Your task to perform on an android device: change keyboard looks Image 0: 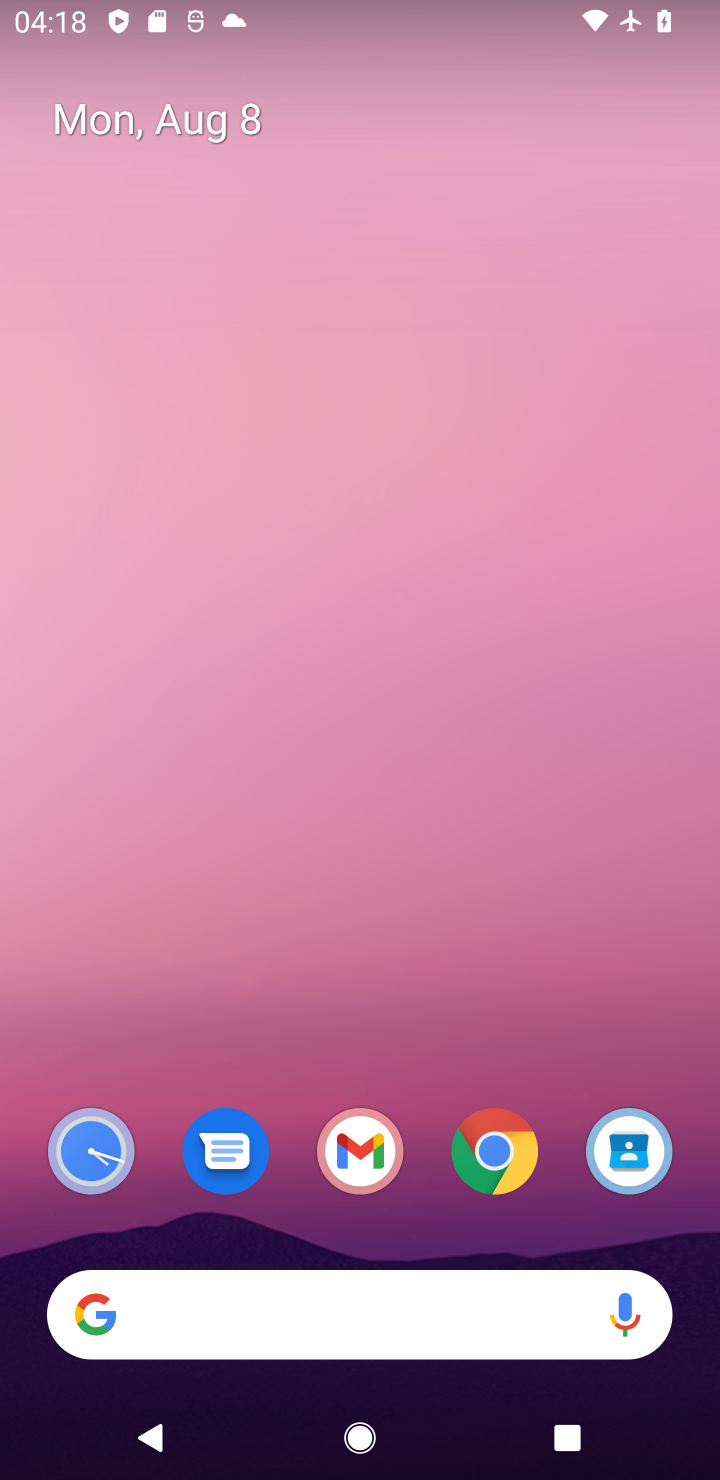
Step 0: drag from (388, 1061) to (355, 228)
Your task to perform on an android device: change keyboard looks Image 1: 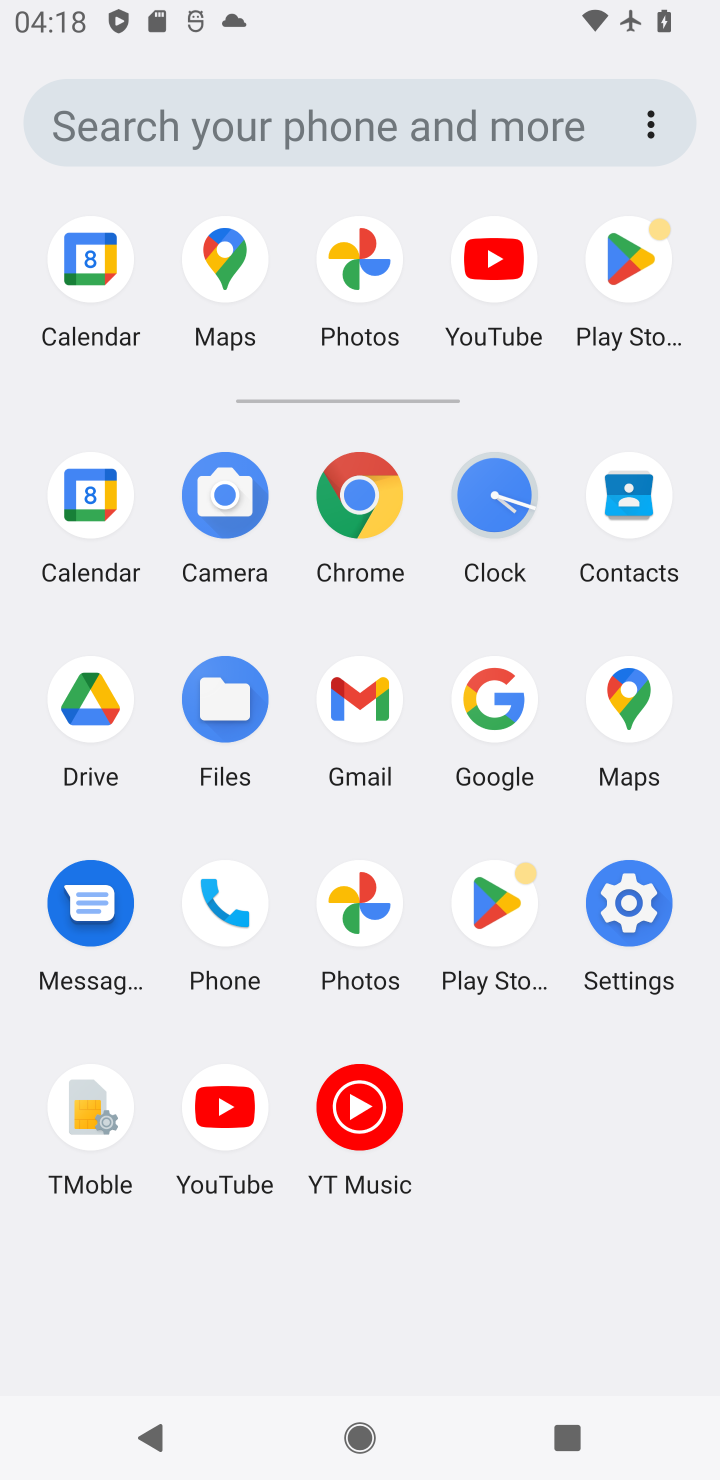
Step 1: click (608, 904)
Your task to perform on an android device: change keyboard looks Image 2: 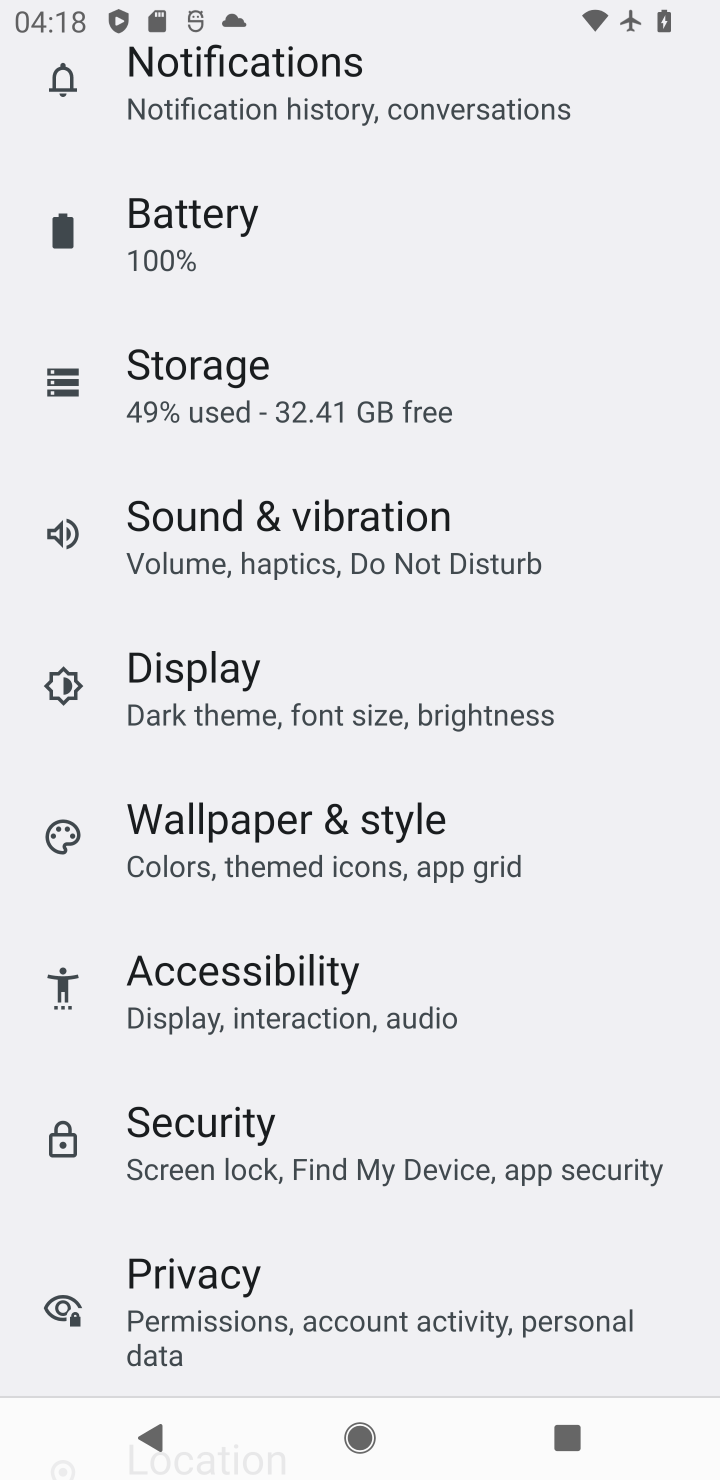
Step 2: drag from (425, 1159) to (318, 413)
Your task to perform on an android device: change keyboard looks Image 3: 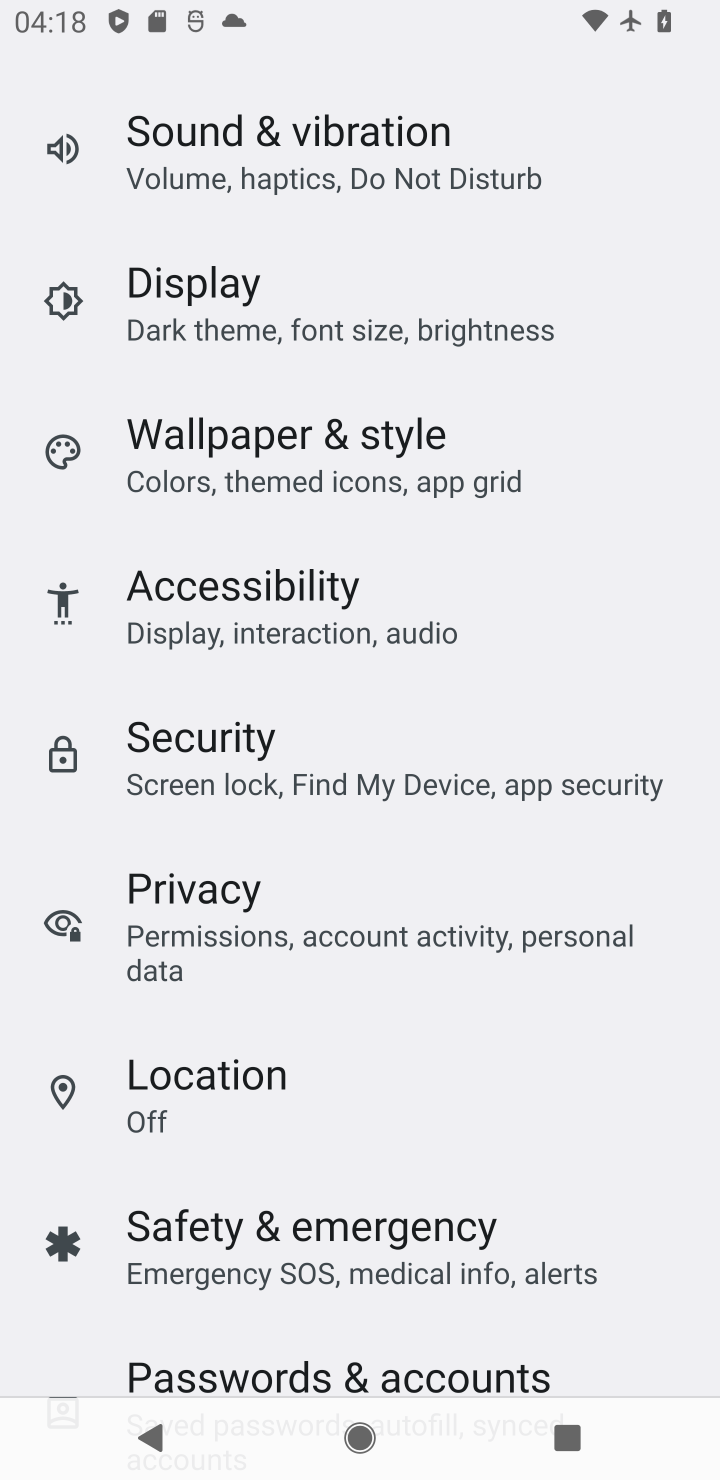
Step 3: drag from (329, 1163) to (329, 410)
Your task to perform on an android device: change keyboard looks Image 4: 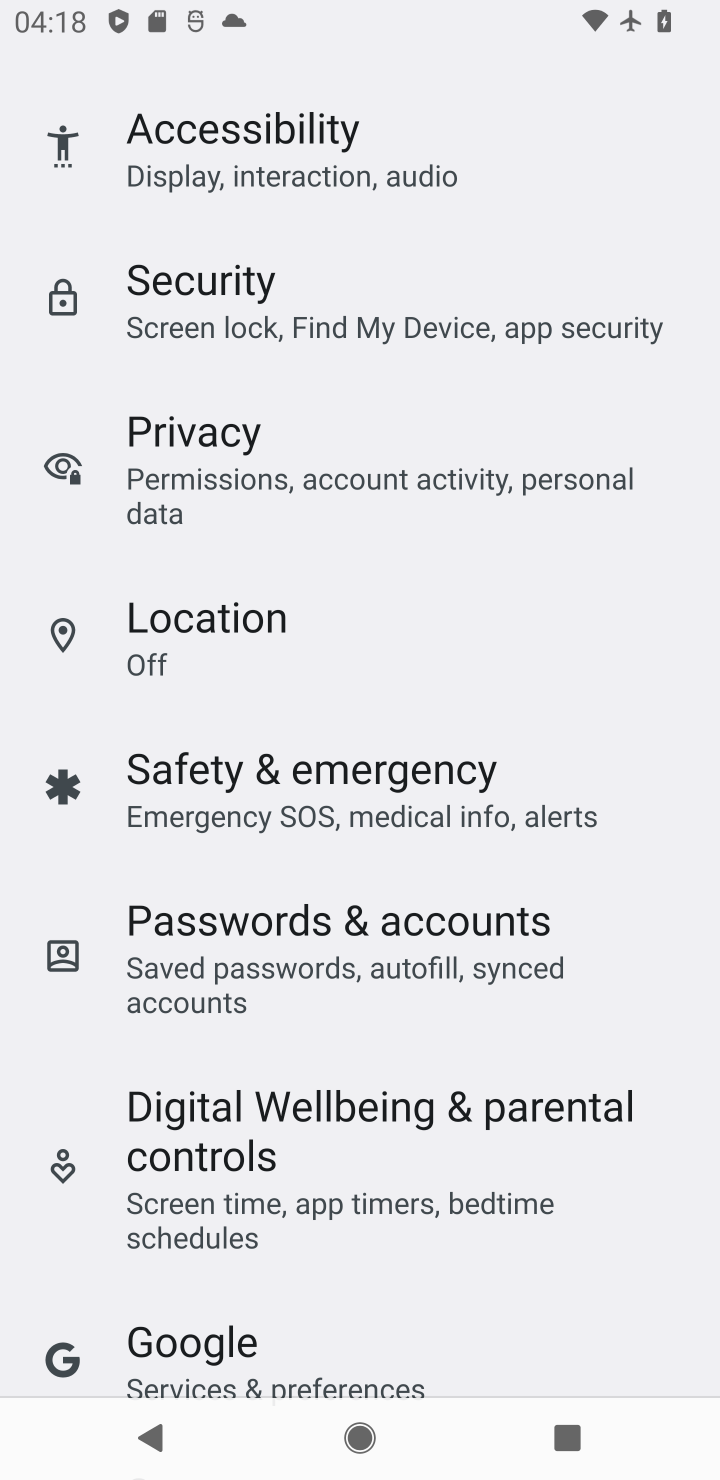
Step 4: drag from (332, 1302) to (321, 503)
Your task to perform on an android device: change keyboard looks Image 5: 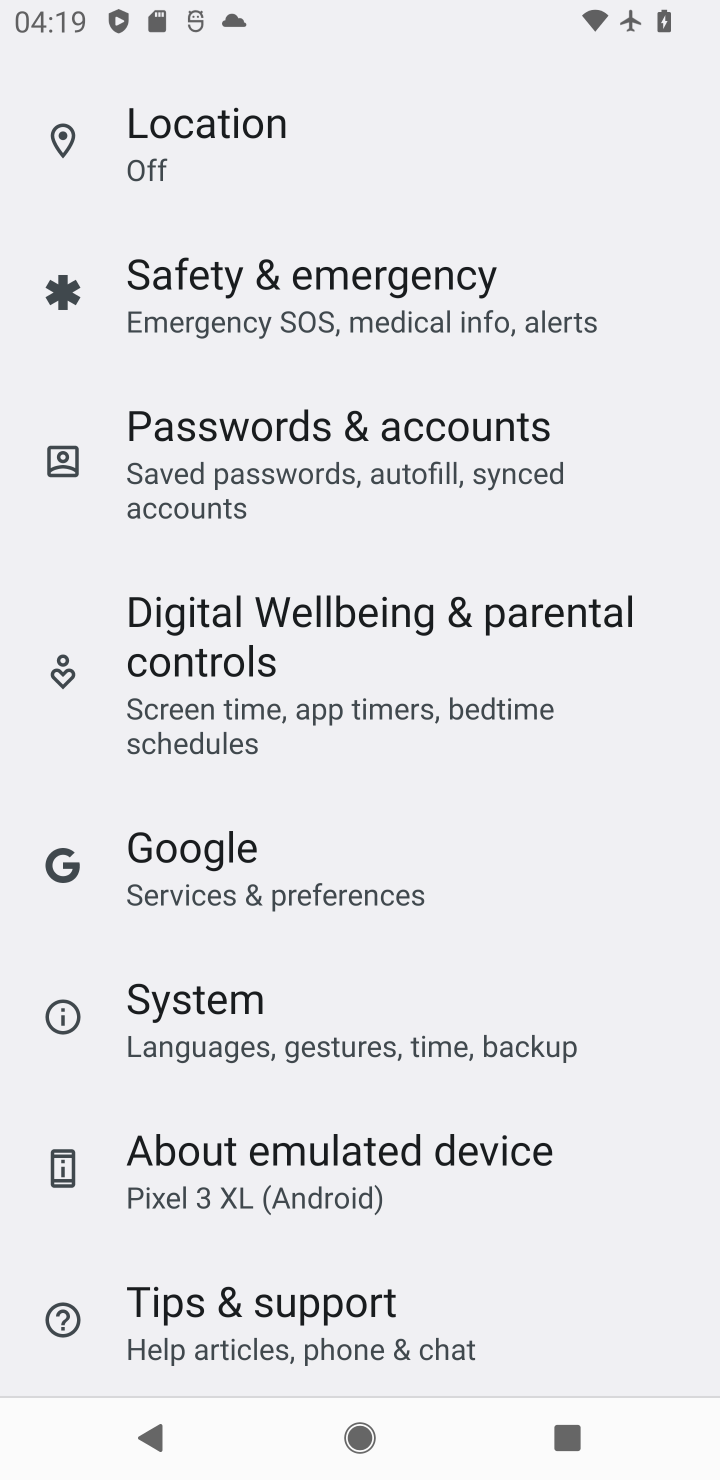
Step 5: drag from (321, 1345) to (321, 589)
Your task to perform on an android device: change keyboard looks Image 6: 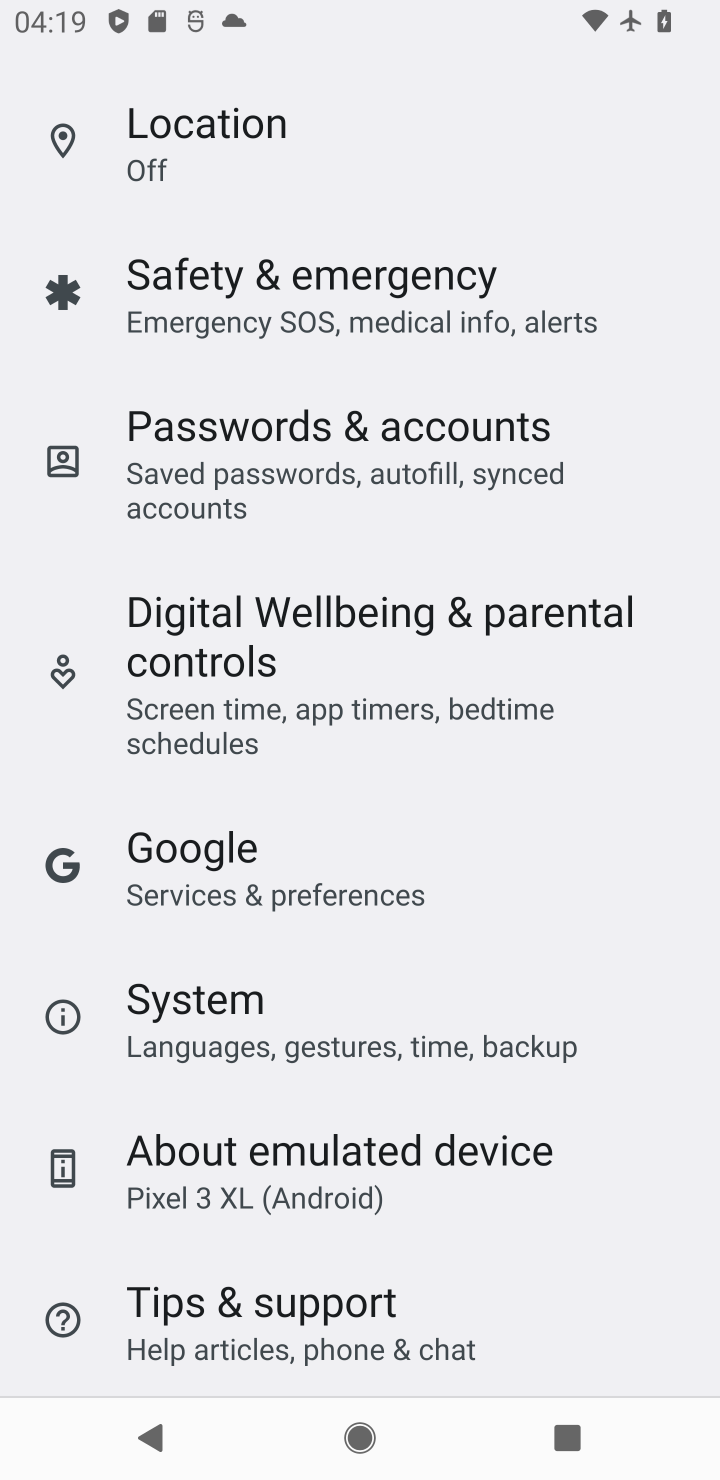
Step 6: click (311, 1040)
Your task to perform on an android device: change keyboard looks Image 7: 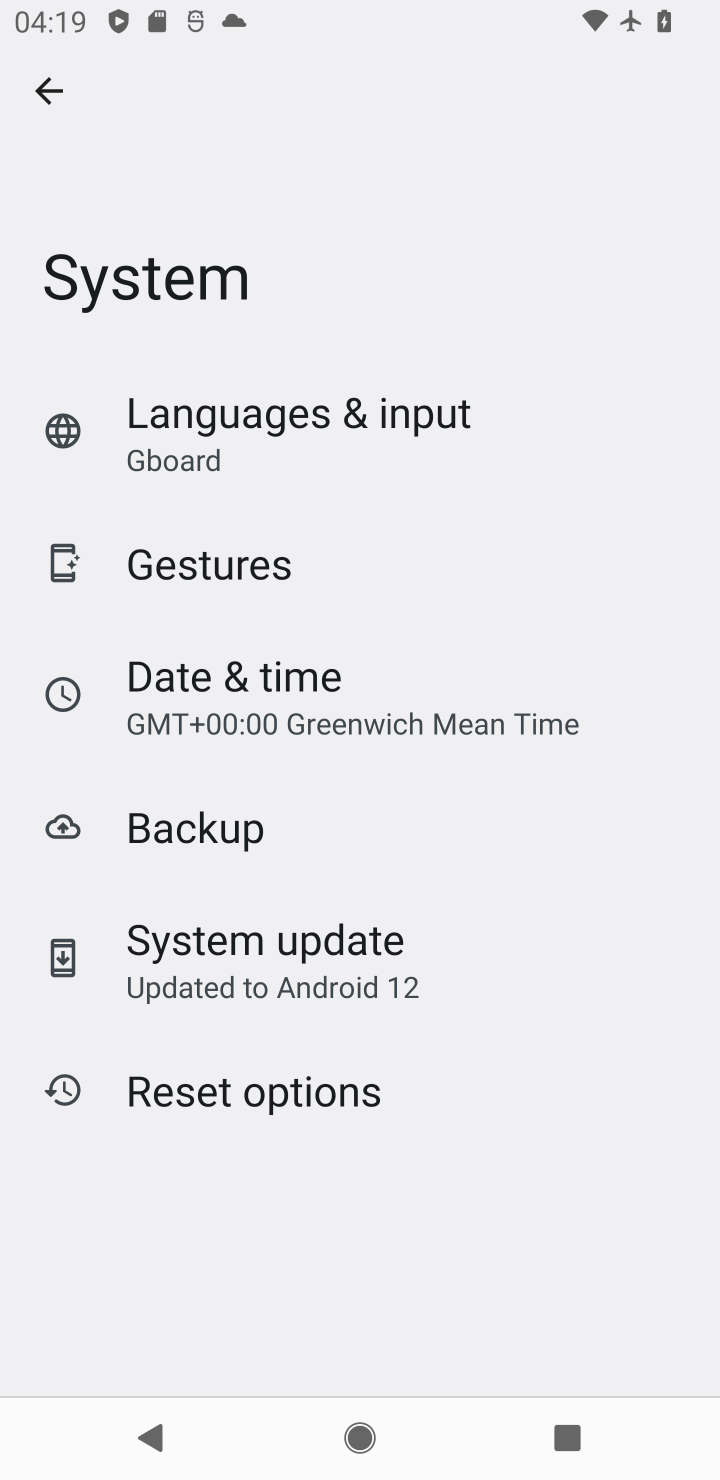
Step 7: click (179, 456)
Your task to perform on an android device: change keyboard looks Image 8: 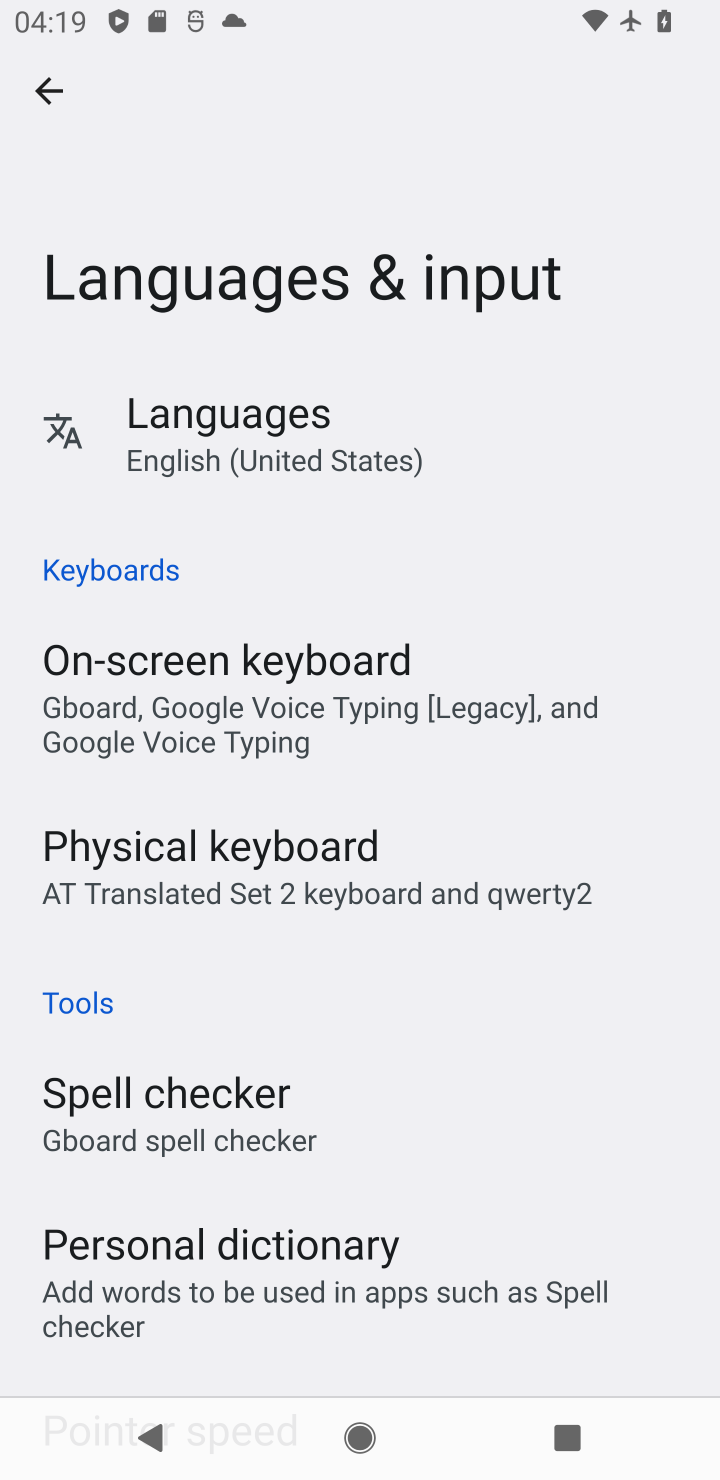
Step 8: drag from (320, 1098) to (238, 454)
Your task to perform on an android device: change keyboard looks Image 9: 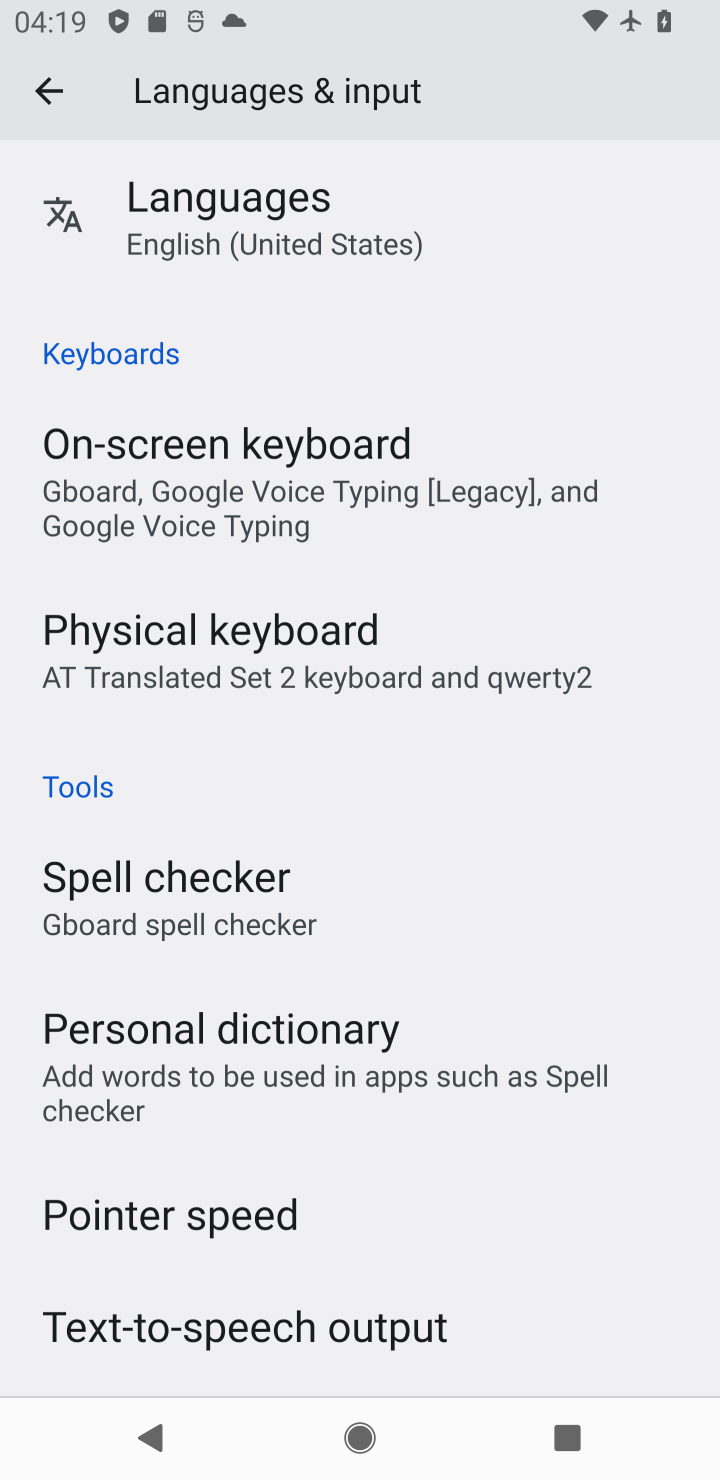
Step 9: drag from (244, 1114) to (197, 590)
Your task to perform on an android device: change keyboard looks Image 10: 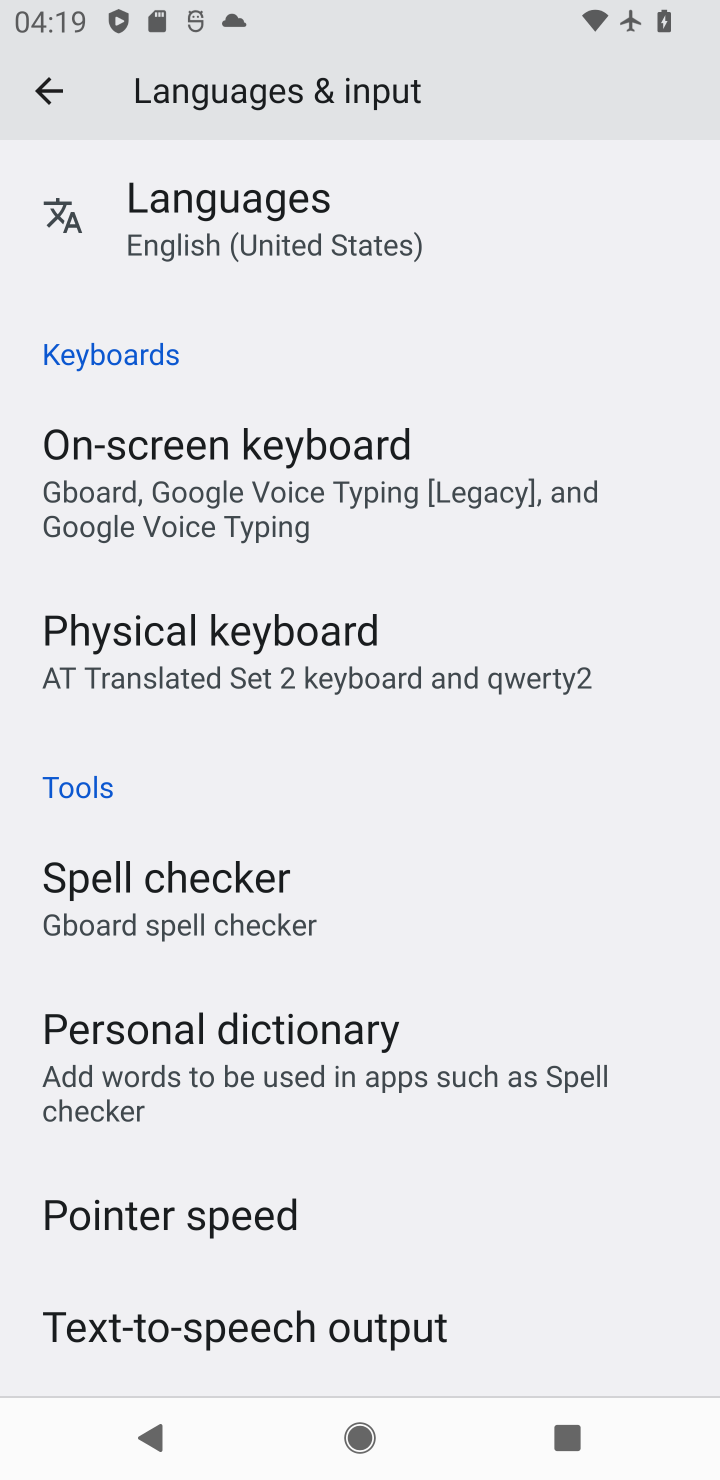
Step 10: click (254, 236)
Your task to perform on an android device: change keyboard looks Image 11: 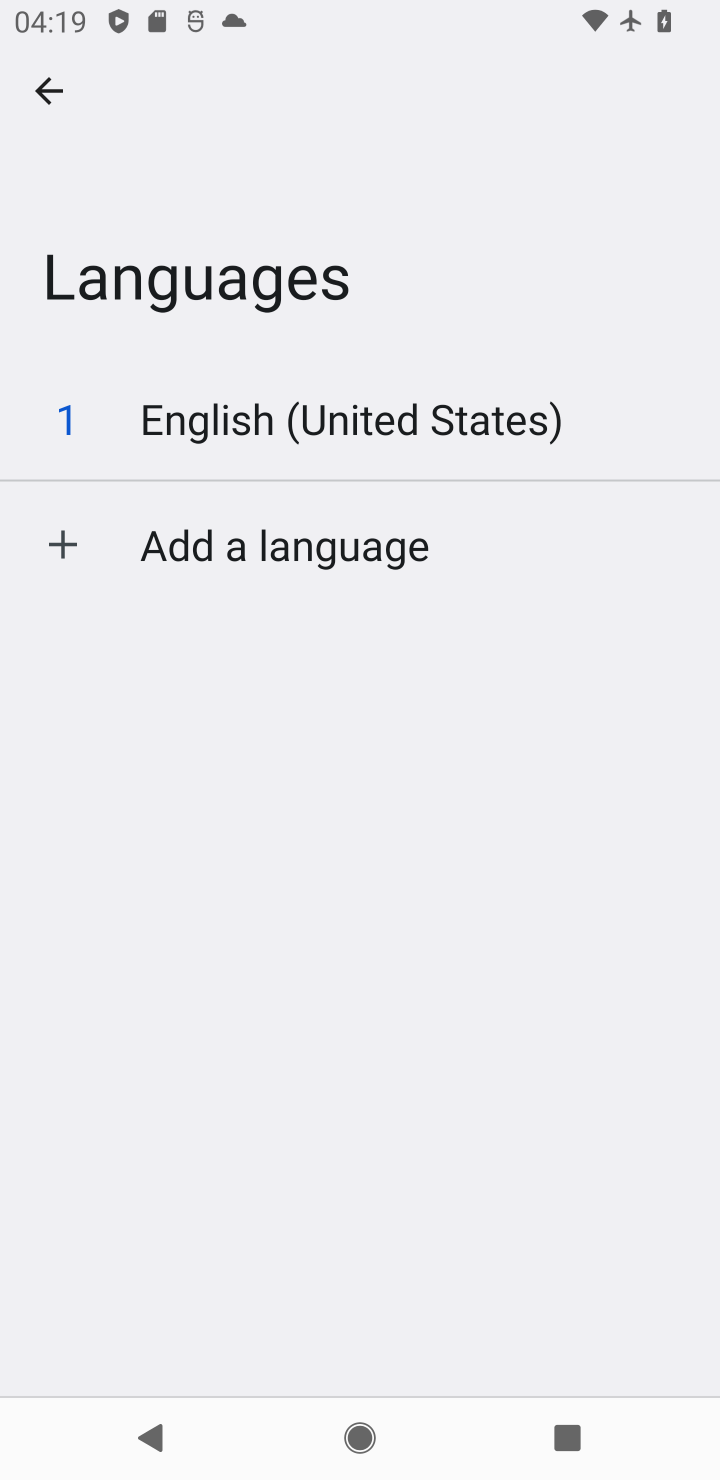
Step 11: click (39, 111)
Your task to perform on an android device: change keyboard looks Image 12: 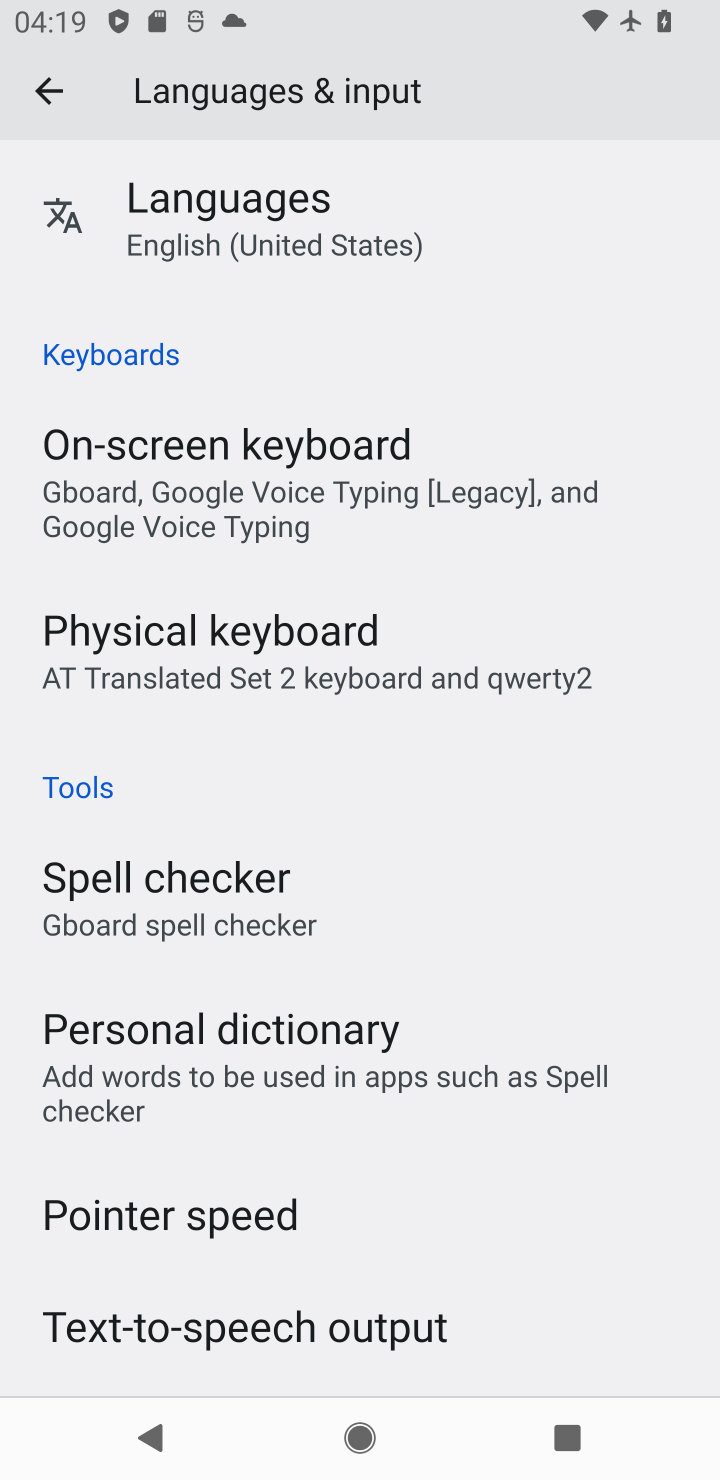
Step 12: drag from (326, 372) to (501, 1242)
Your task to perform on an android device: change keyboard looks Image 13: 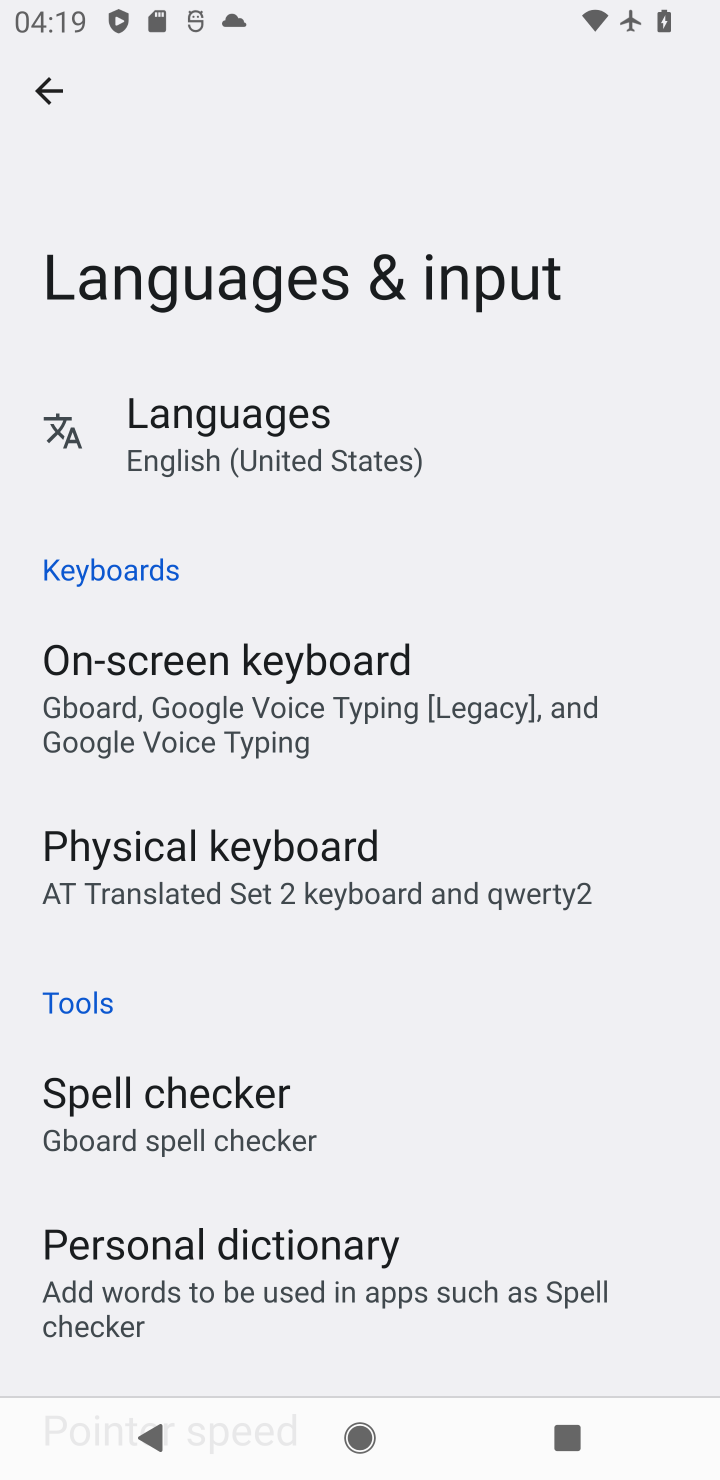
Step 13: click (337, 698)
Your task to perform on an android device: change keyboard looks Image 14: 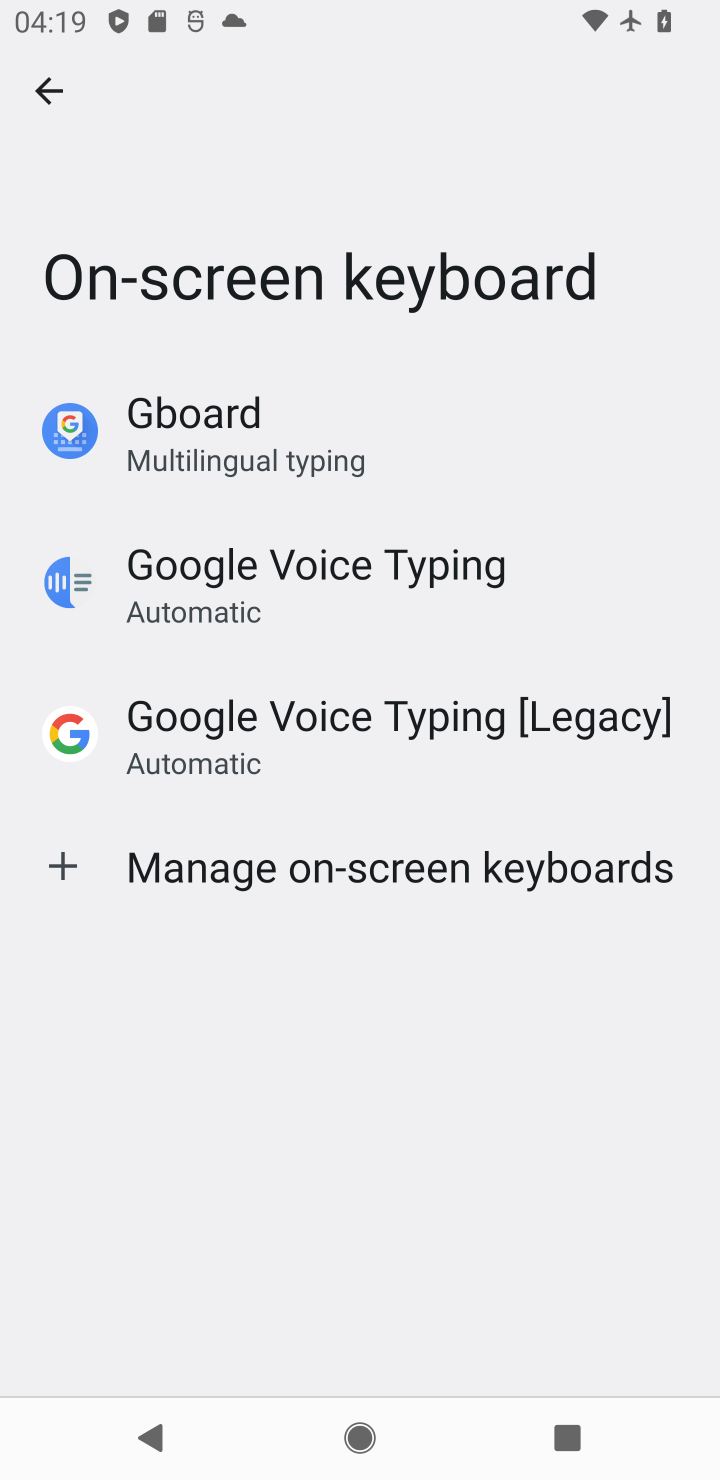
Step 14: click (285, 455)
Your task to perform on an android device: change keyboard looks Image 15: 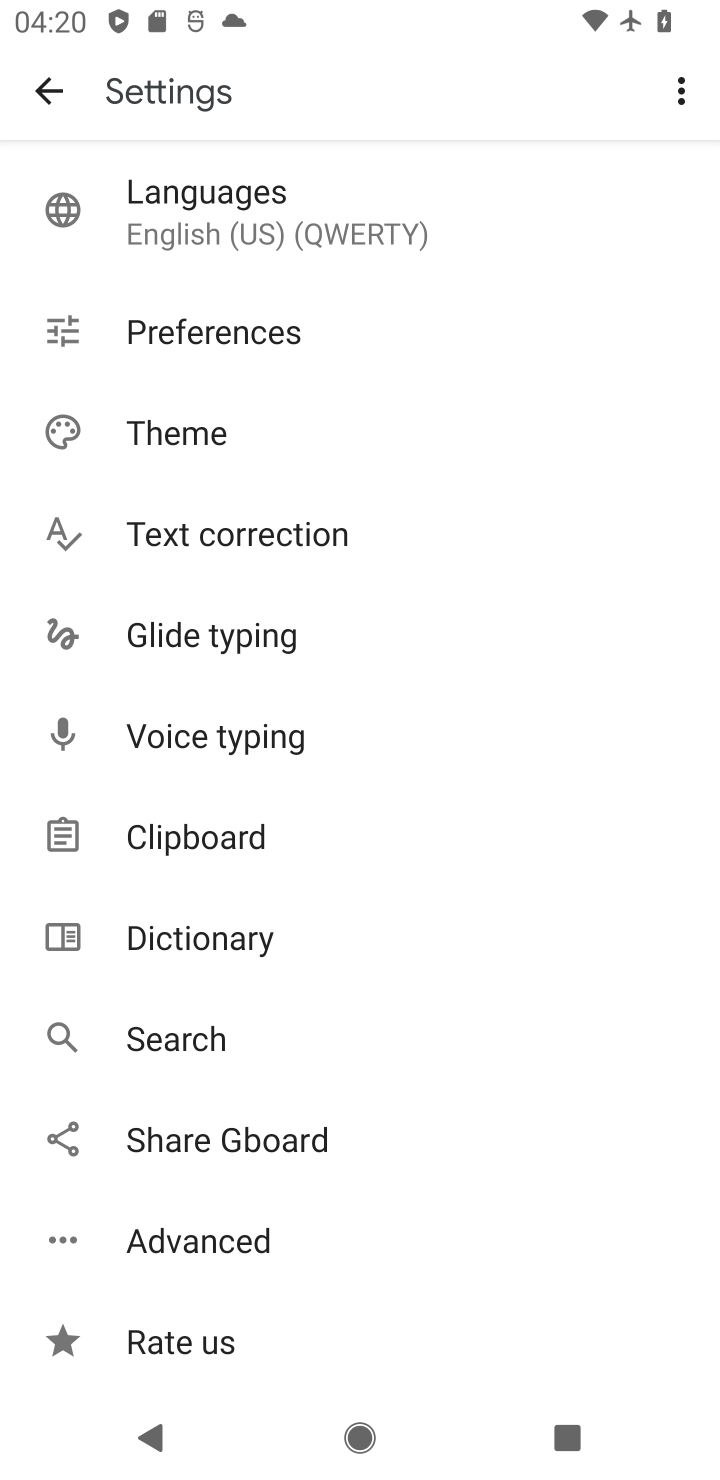
Step 15: click (217, 424)
Your task to perform on an android device: change keyboard looks Image 16: 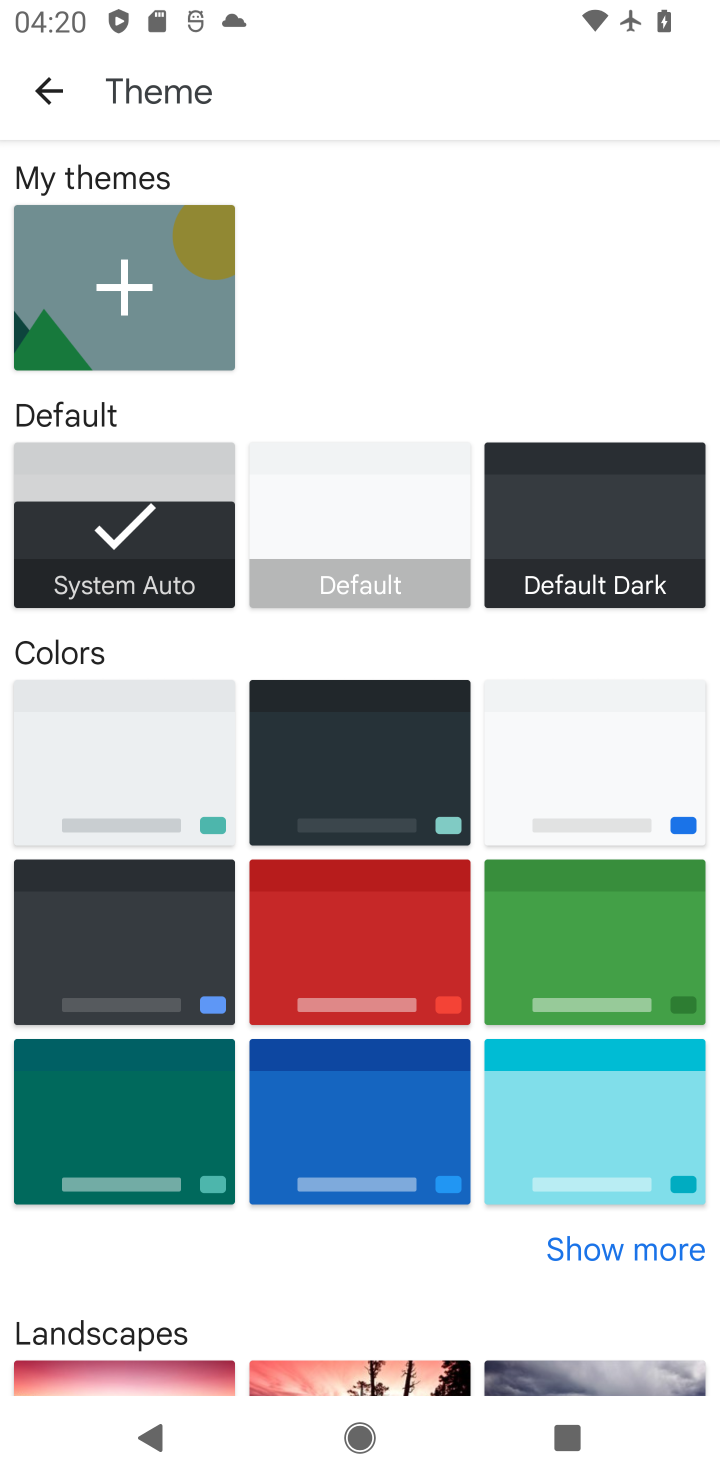
Step 16: click (326, 501)
Your task to perform on an android device: change keyboard looks Image 17: 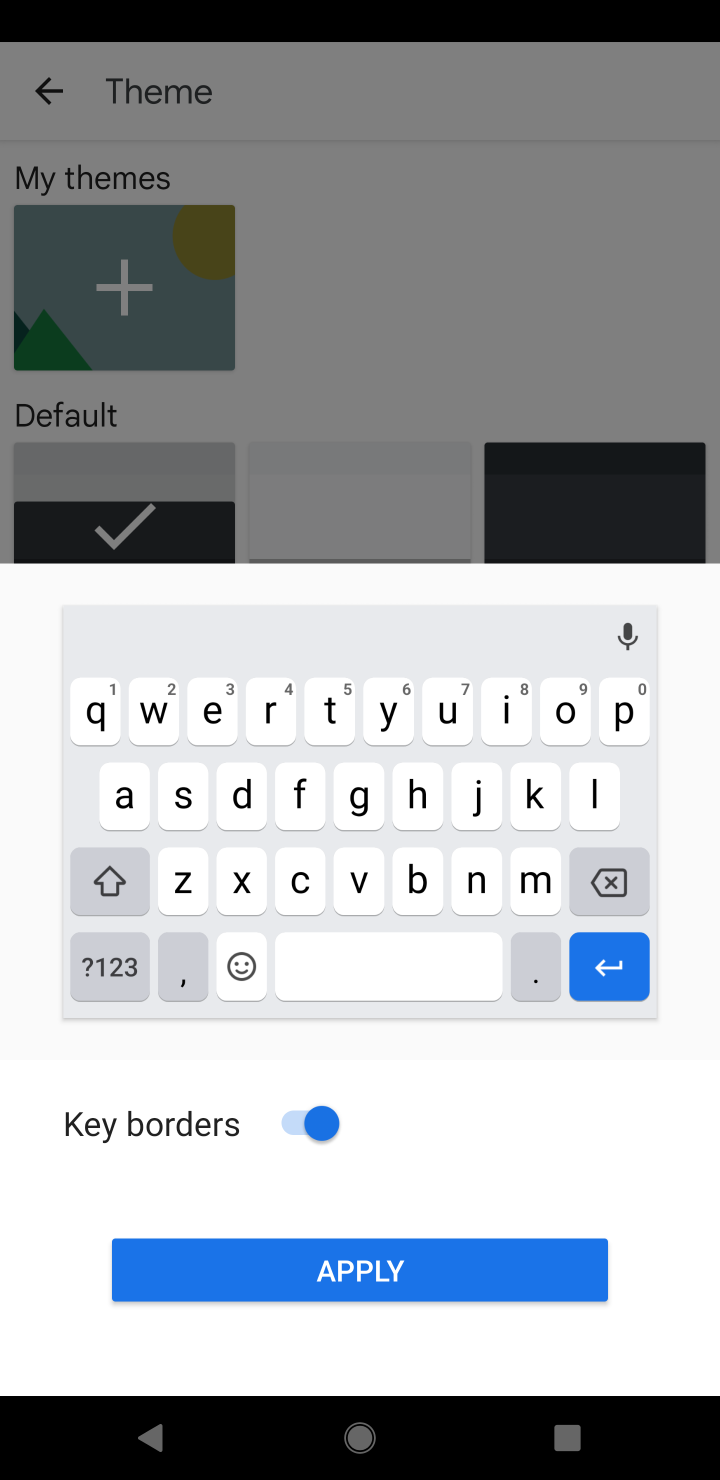
Step 17: click (349, 1304)
Your task to perform on an android device: change keyboard looks Image 18: 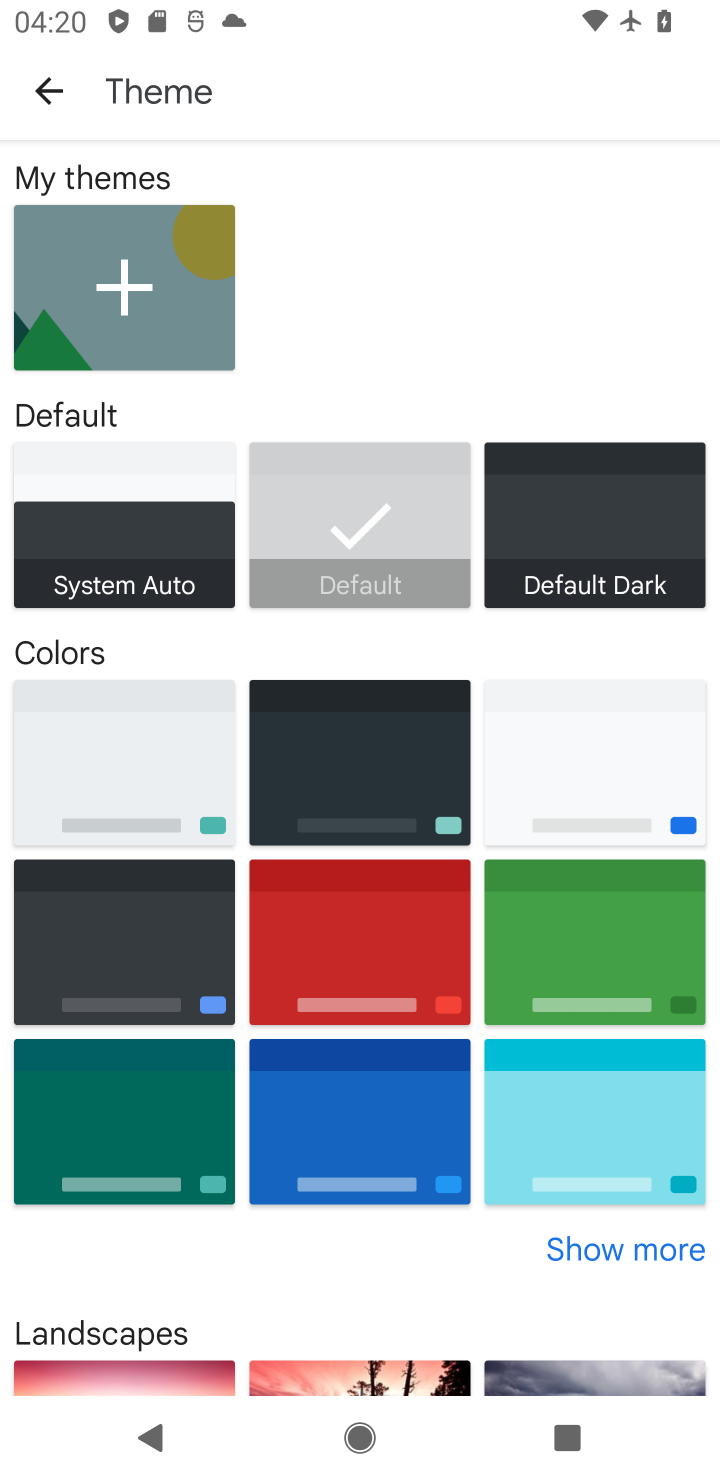
Step 18: task complete